Your task to perform on an android device: Open battery settings Image 0: 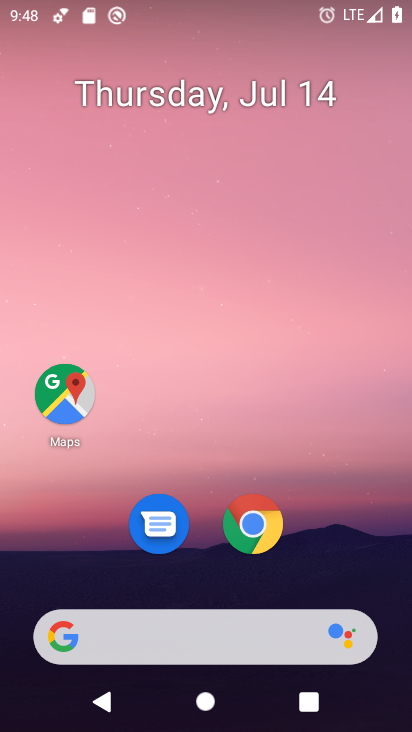
Step 0: drag from (325, 530) to (214, 68)
Your task to perform on an android device: Open battery settings Image 1: 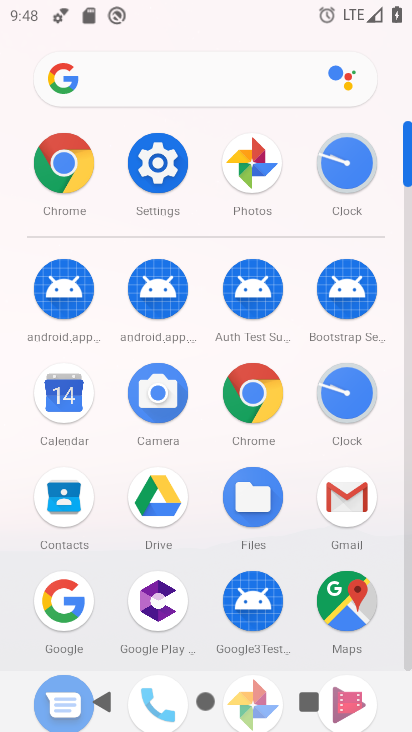
Step 1: click (166, 164)
Your task to perform on an android device: Open battery settings Image 2: 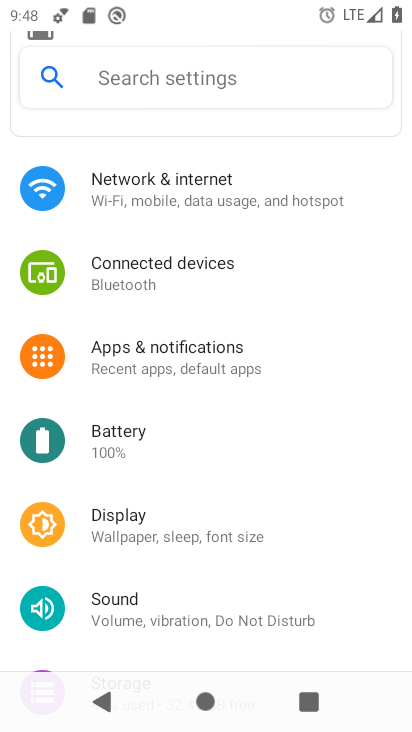
Step 2: click (114, 426)
Your task to perform on an android device: Open battery settings Image 3: 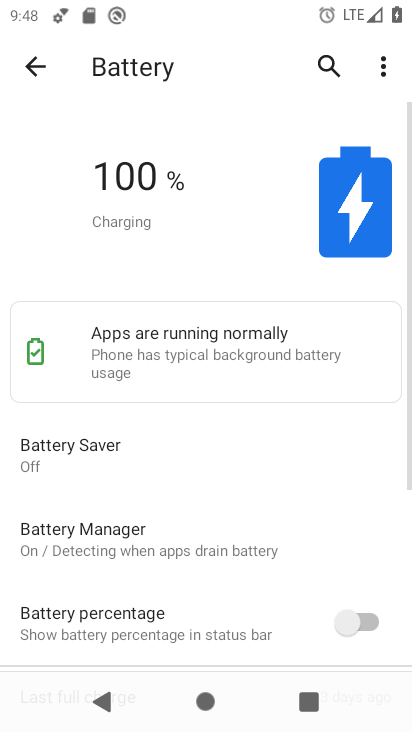
Step 3: task complete